Your task to perform on an android device: choose inbox layout in the gmail app Image 0: 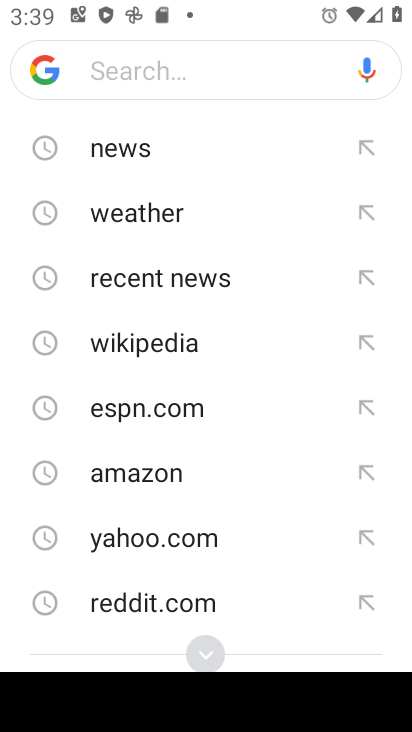
Step 0: press back button
Your task to perform on an android device: choose inbox layout in the gmail app Image 1: 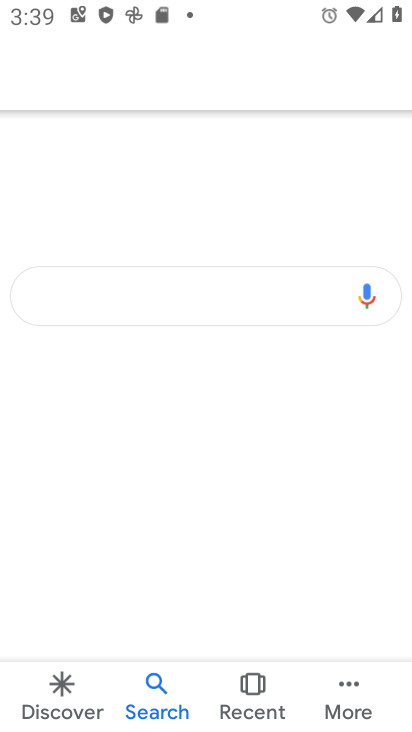
Step 1: press back button
Your task to perform on an android device: choose inbox layout in the gmail app Image 2: 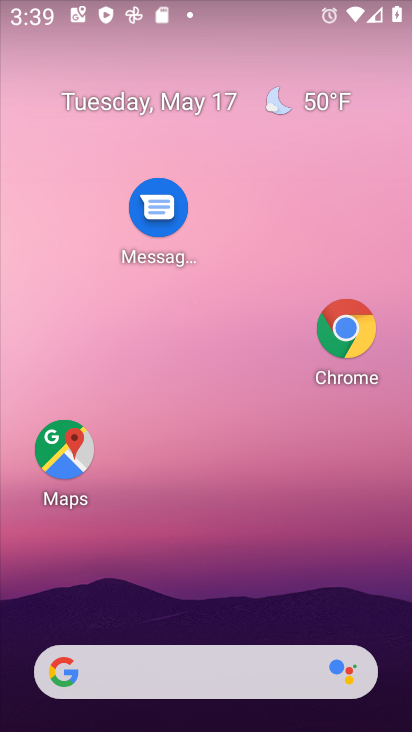
Step 2: drag from (203, 625) to (321, 117)
Your task to perform on an android device: choose inbox layout in the gmail app Image 3: 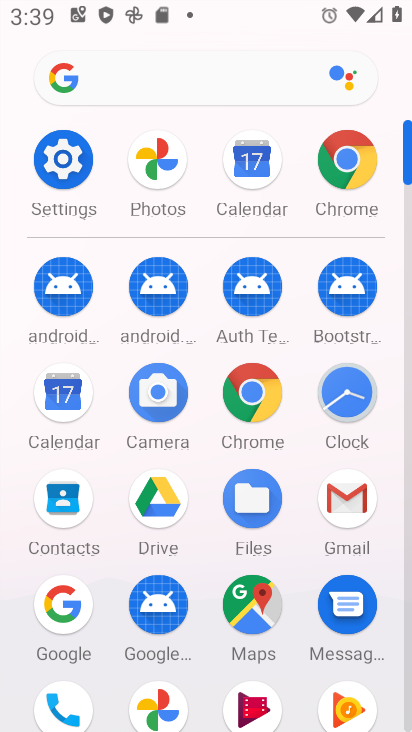
Step 3: click (332, 508)
Your task to perform on an android device: choose inbox layout in the gmail app Image 4: 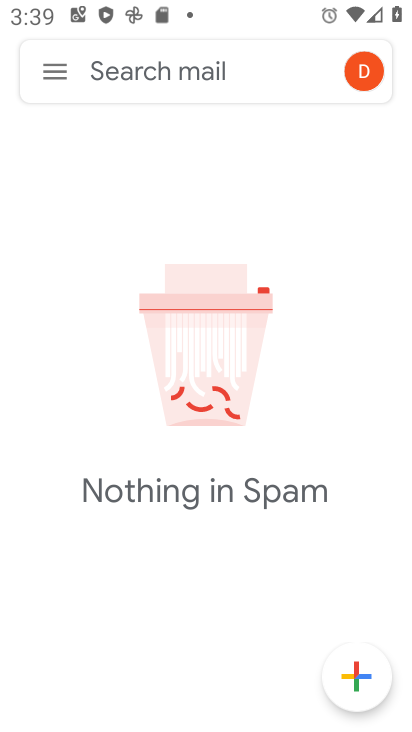
Step 4: click (55, 69)
Your task to perform on an android device: choose inbox layout in the gmail app Image 5: 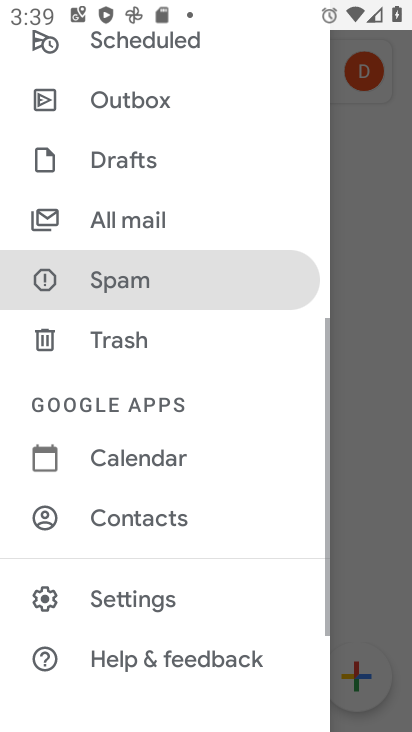
Step 5: drag from (110, 128) to (108, 727)
Your task to perform on an android device: choose inbox layout in the gmail app Image 6: 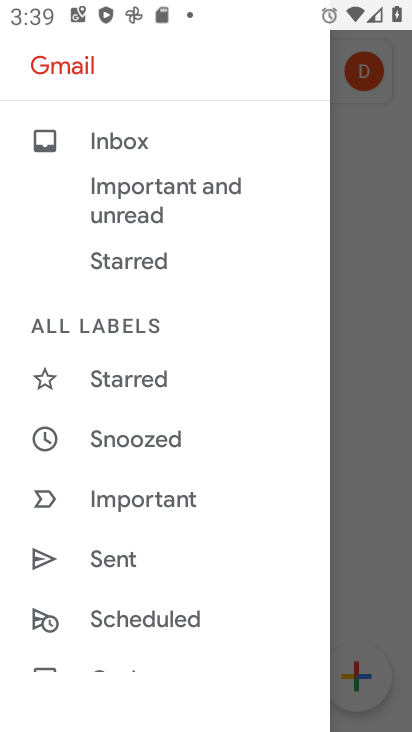
Step 6: click (159, 124)
Your task to perform on an android device: choose inbox layout in the gmail app Image 7: 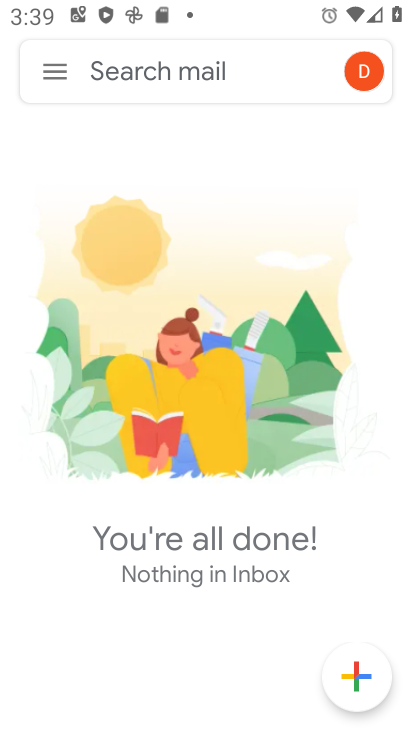
Step 7: task complete